Your task to perform on an android device: toggle wifi Image 0: 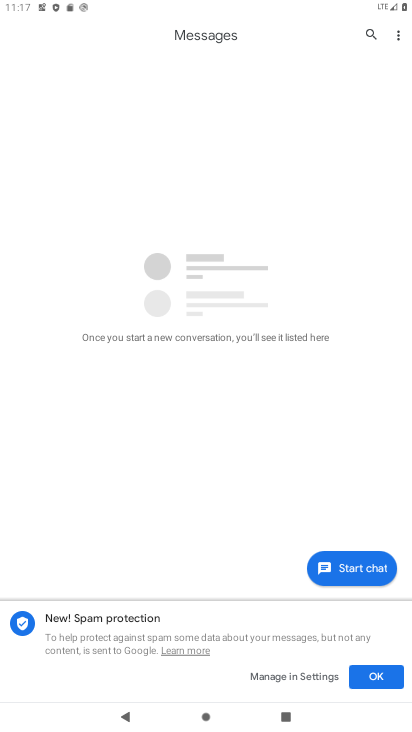
Step 0: press home button
Your task to perform on an android device: toggle wifi Image 1: 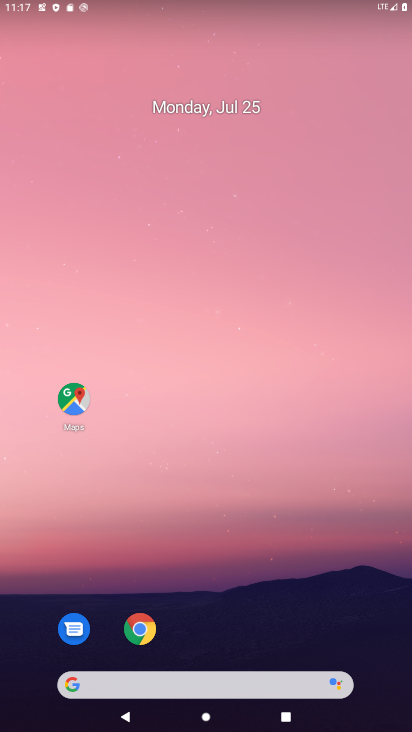
Step 1: drag from (198, 627) to (199, 294)
Your task to perform on an android device: toggle wifi Image 2: 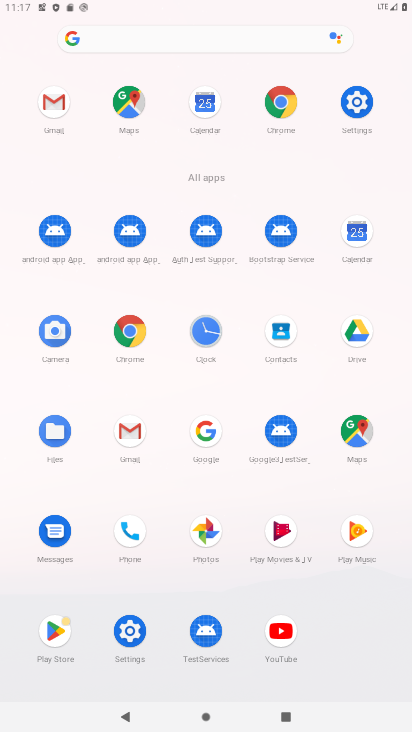
Step 2: click (351, 102)
Your task to perform on an android device: toggle wifi Image 3: 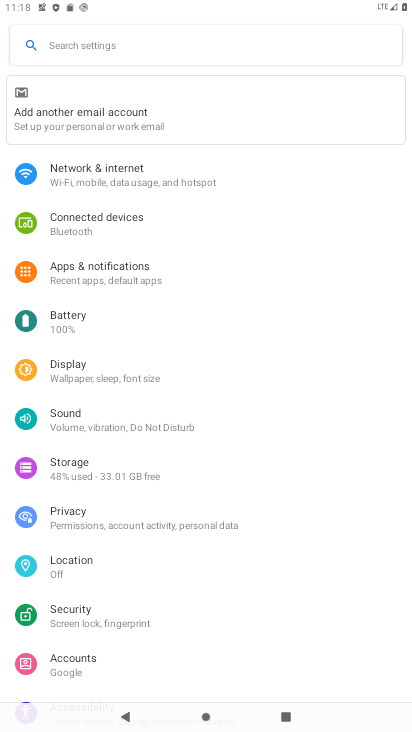
Step 3: click (152, 162)
Your task to perform on an android device: toggle wifi Image 4: 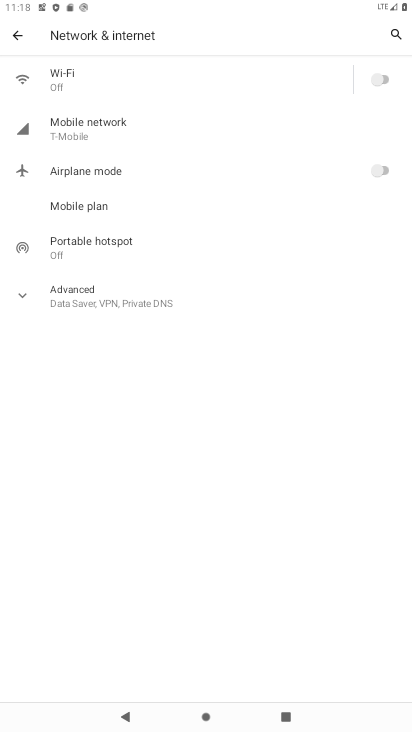
Step 4: click (381, 77)
Your task to perform on an android device: toggle wifi Image 5: 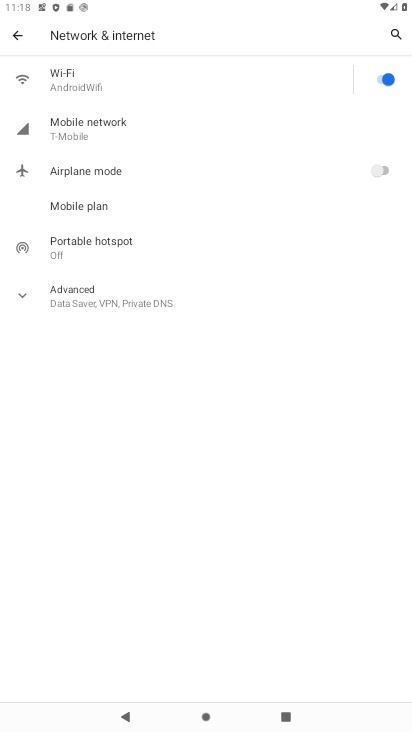
Step 5: task complete